Your task to perform on an android device: Open Yahoo.com Image 0: 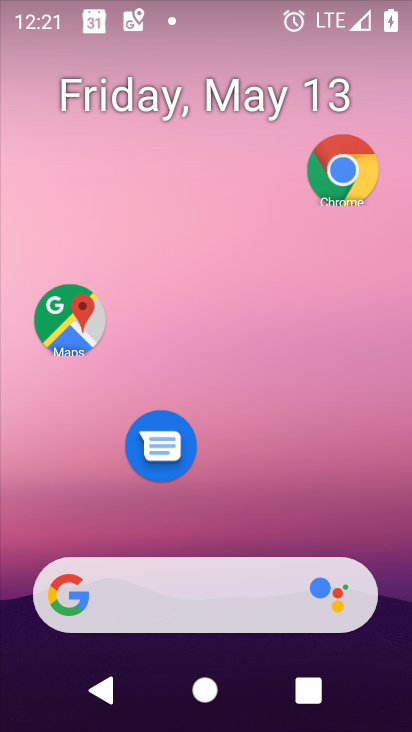
Step 0: drag from (276, 506) to (291, 21)
Your task to perform on an android device: Open Yahoo.com Image 1: 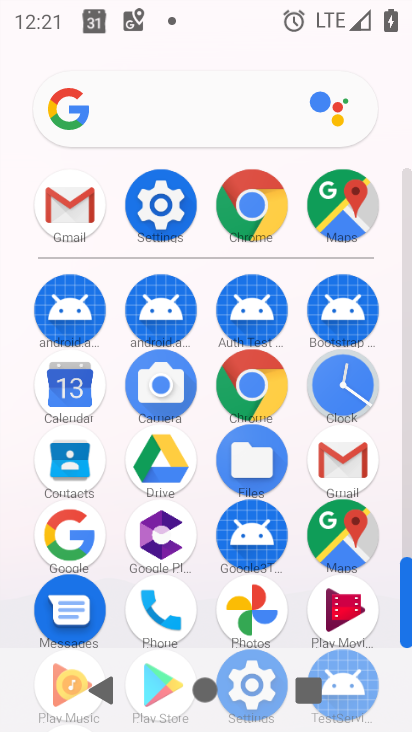
Step 1: click (247, 384)
Your task to perform on an android device: Open Yahoo.com Image 2: 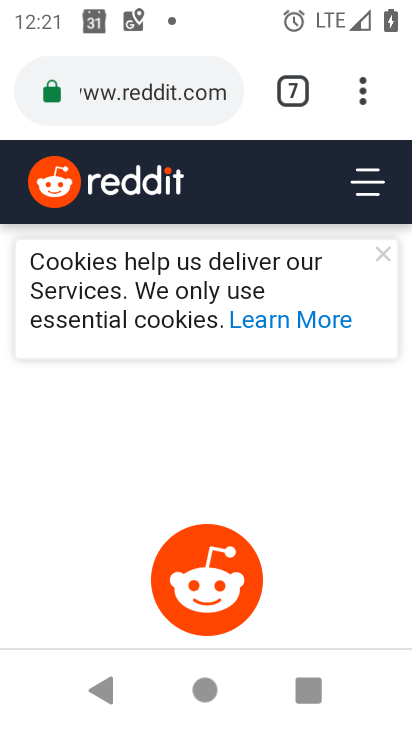
Step 2: click (157, 96)
Your task to perform on an android device: Open Yahoo.com Image 3: 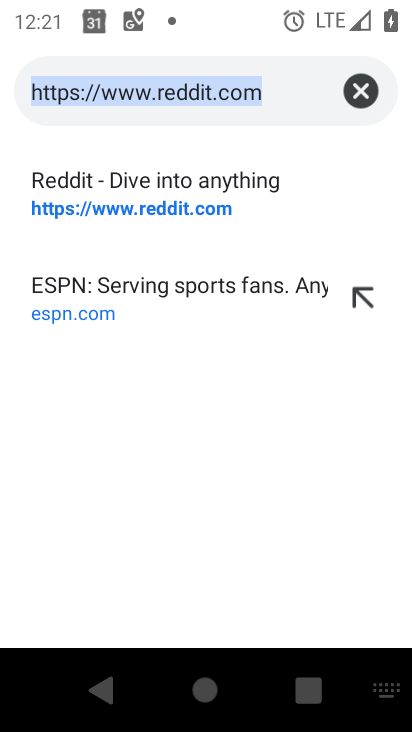
Step 3: click (343, 95)
Your task to perform on an android device: Open Yahoo.com Image 4: 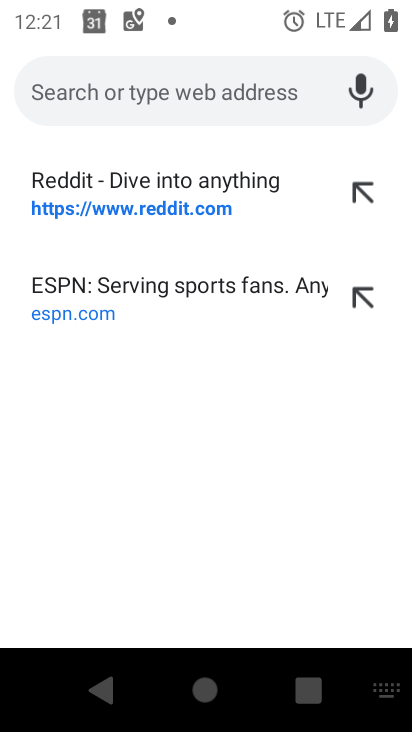
Step 4: type "yahoo.com"
Your task to perform on an android device: Open Yahoo.com Image 5: 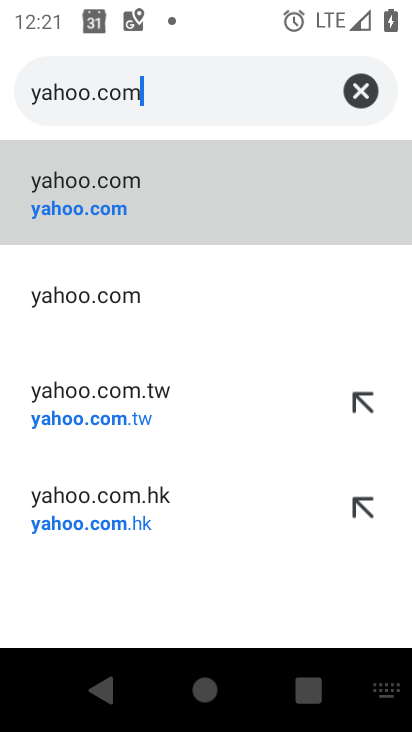
Step 5: click (170, 205)
Your task to perform on an android device: Open Yahoo.com Image 6: 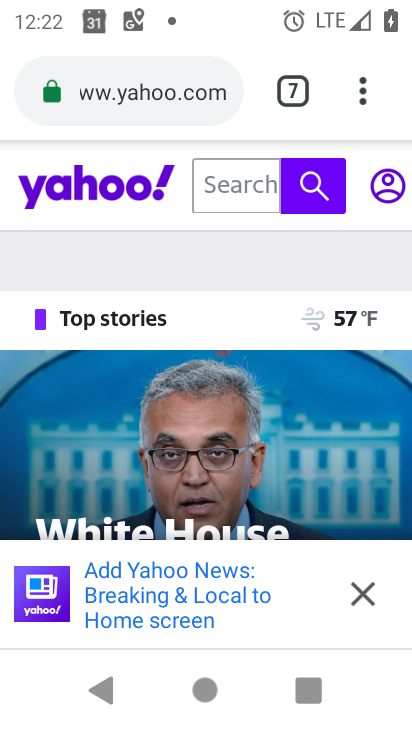
Step 6: task complete